Your task to perform on an android device: What's the weather going to be tomorrow? Image 0: 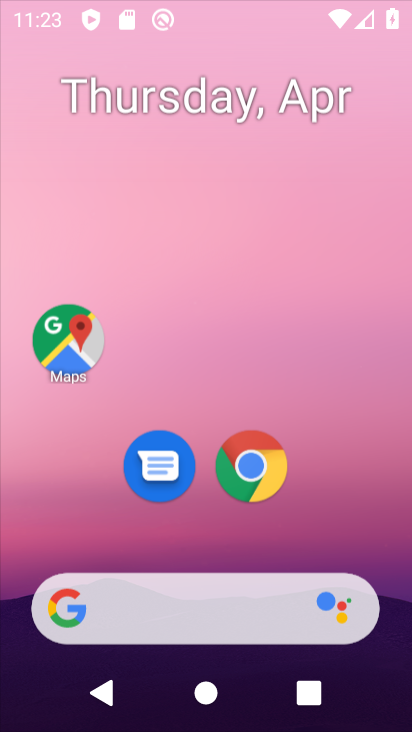
Step 0: click (266, 55)
Your task to perform on an android device: What's the weather going to be tomorrow? Image 1: 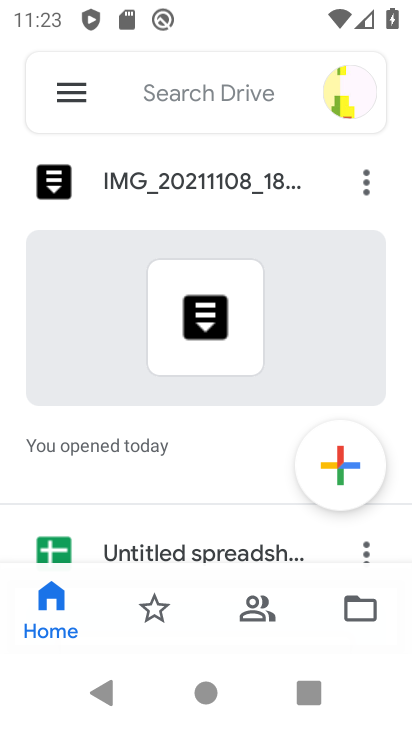
Step 1: press back button
Your task to perform on an android device: What's the weather going to be tomorrow? Image 2: 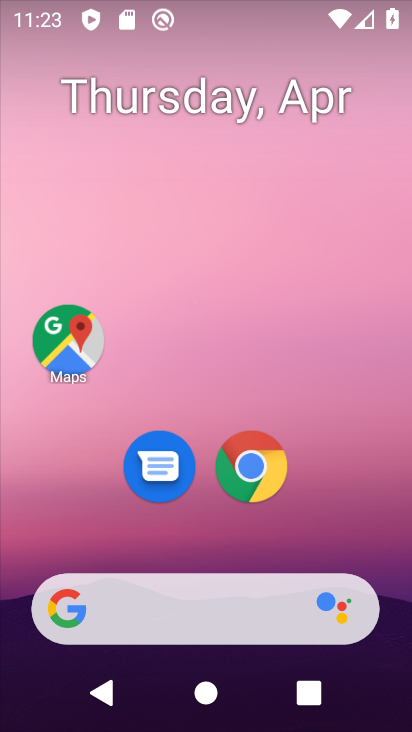
Step 2: click (139, 600)
Your task to perform on an android device: What's the weather going to be tomorrow? Image 3: 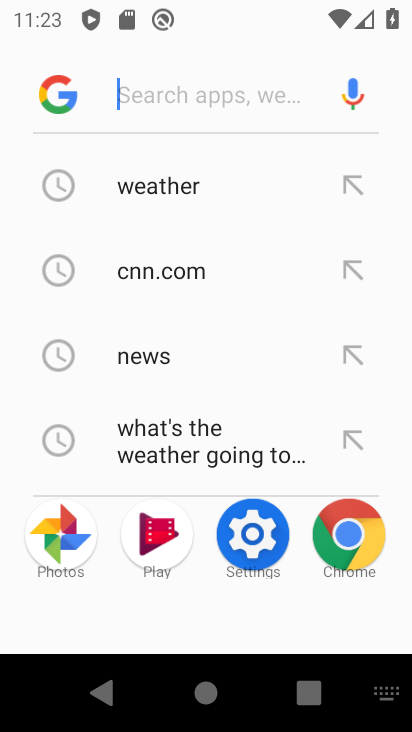
Step 3: type "What's the weather going to be tomorrow?"
Your task to perform on an android device: What's the weather going to be tomorrow? Image 4: 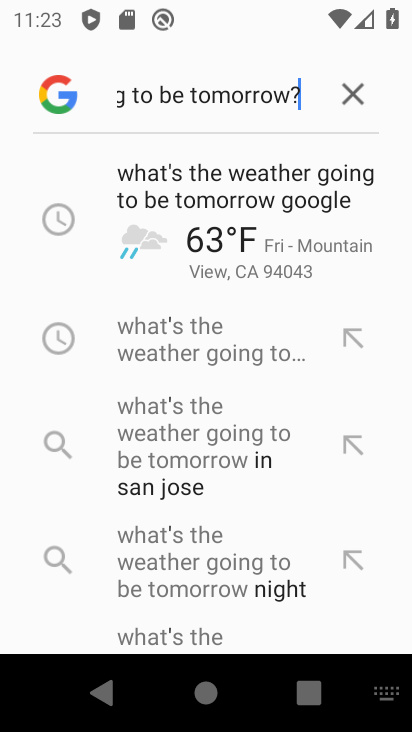
Step 4: click (257, 184)
Your task to perform on an android device: What's the weather going to be tomorrow? Image 5: 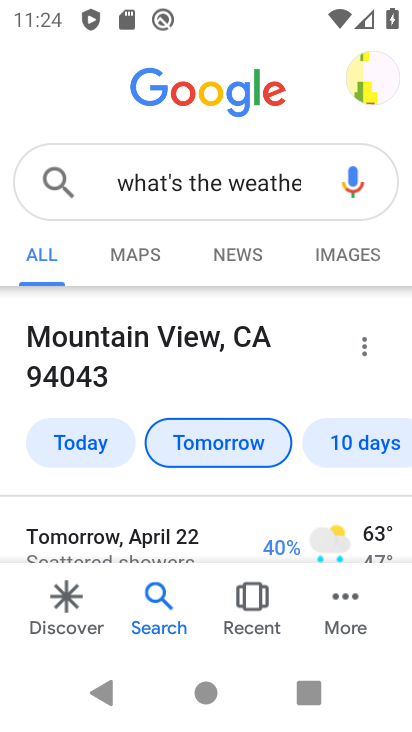
Step 5: task complete